Your task to perform on an android device: clear all cookies in the chrome app Image 0: 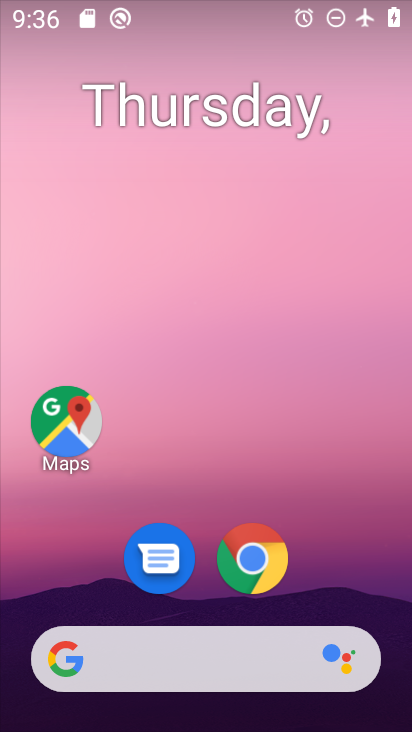
Step 0: click (246, 558)
Your task to perform on an android device: clear all cookies in the chrome app Image 1: 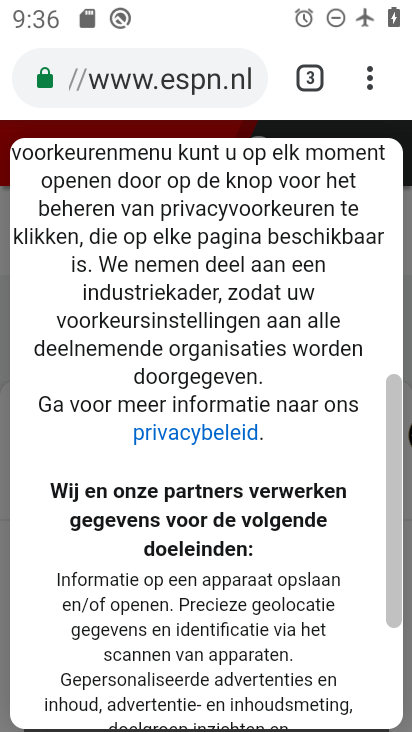
Step 1: click (374, 84)
Your task to perform on an android device: clear all cookies in the chrome app Image 2: 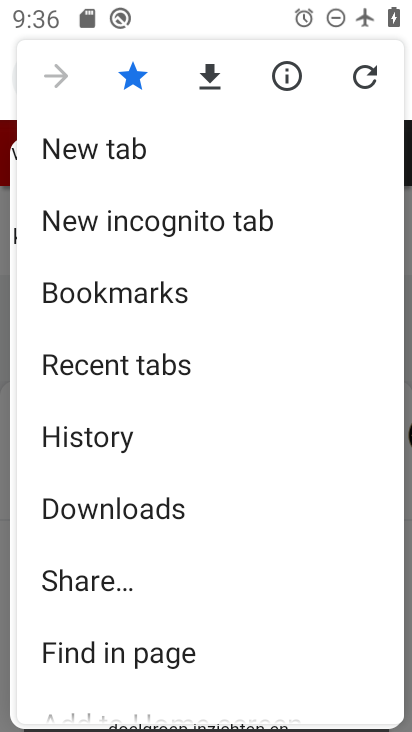
Step 2: click (78, 438)
Your task to perform on an android device: clear all cookies in the chrome app Image 3: 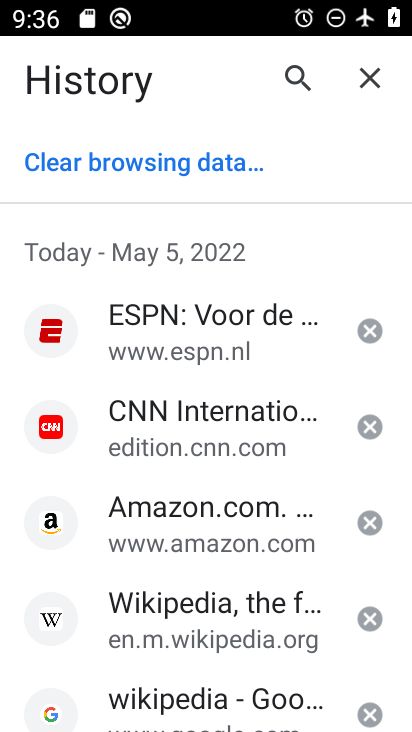
Step 3: click (68, 166)
Your task to perform on an android device: clear all cookies in the chrome app Image 4: 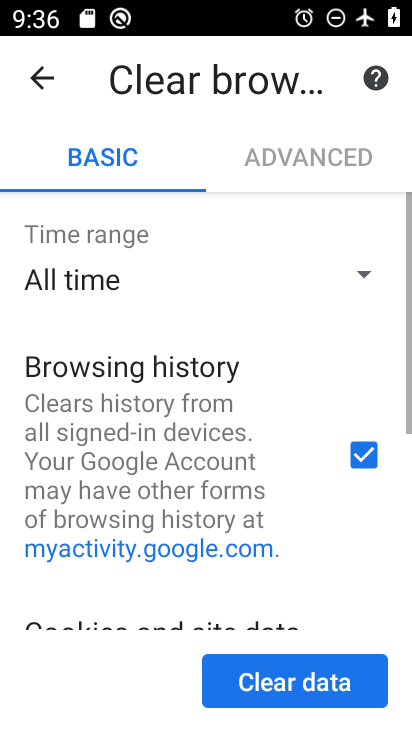
Step 4: drag from (290, 498) to (284, 303)
Your task to perform on an android device: clear all cookies in the chrome app Image 5: 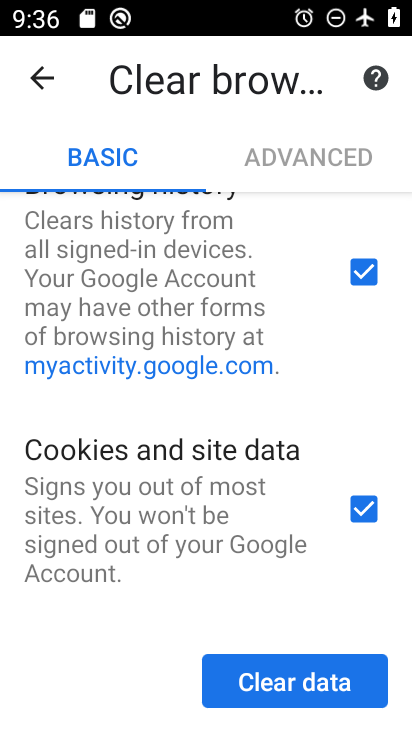
Step 5: click (356, 267)
Your task to perform on an android device: clear all cookies in the chrome app Image 6: 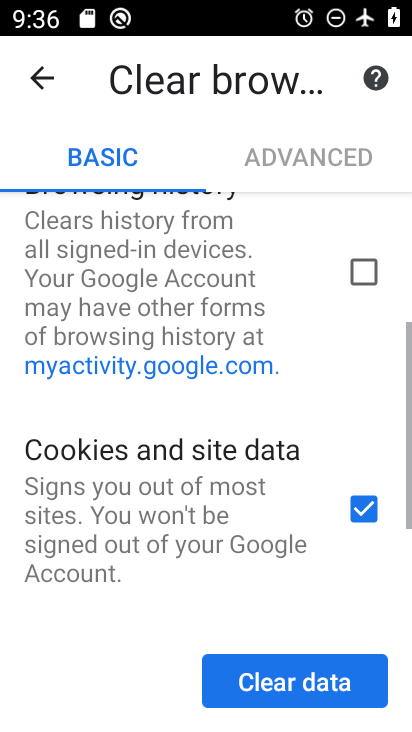
Step 6: drag from (273, 494) to (289, 230)
Your task to perform on an android device: clear all cookies in the chrome app Image 7: 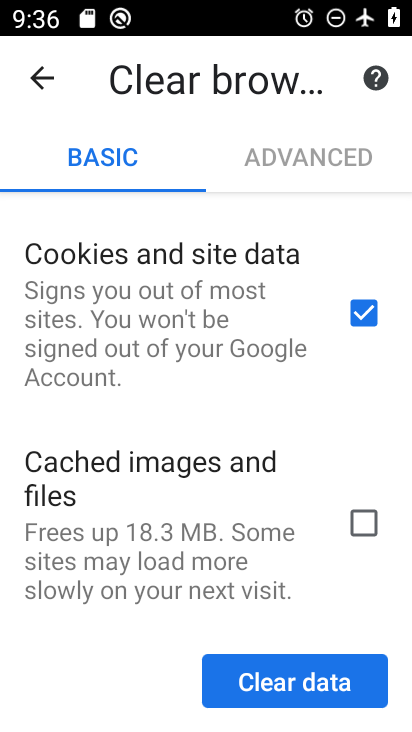
Step 7: click (276, 668)
Your task to perform on an android device: clear all cookies in the chrome app Image 8: 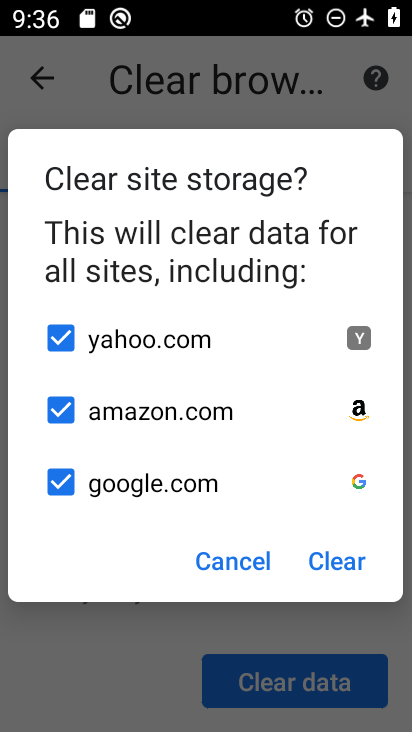
Step 8: click (327, 560)
Your task to perform on an android device: clear all cookies in the chrome app Image 9: 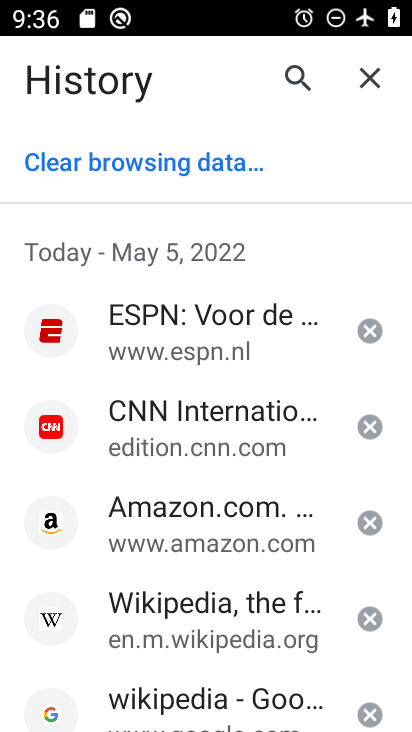
Step 9: task complete